Your task to perform on an android device: choose inbox layout in the gmail app Image 0: 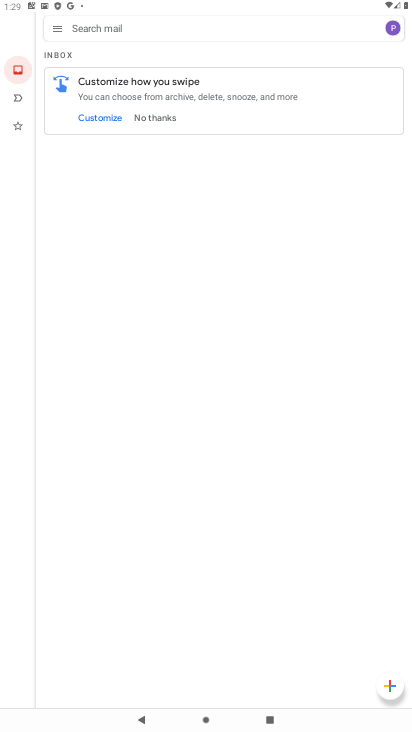
Step 0: press home button
Your task to perform on an android device: choose inbox layout in the gmail app Image 1: 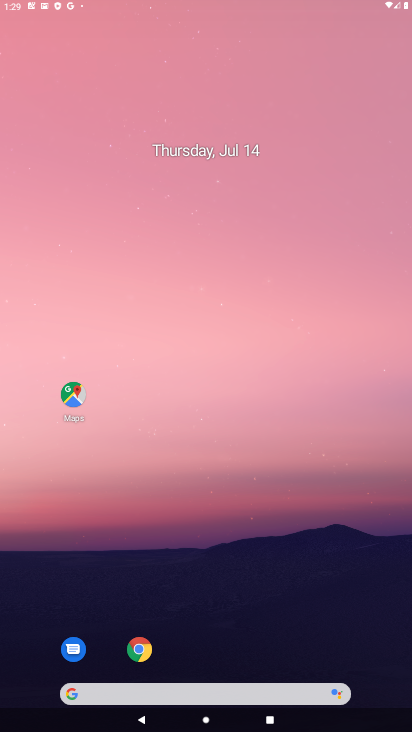
Step 1: drag from (372, 658) to (174, 33)
Your task to perform on an android device: choose inbox layout in the gmail app Image 2: 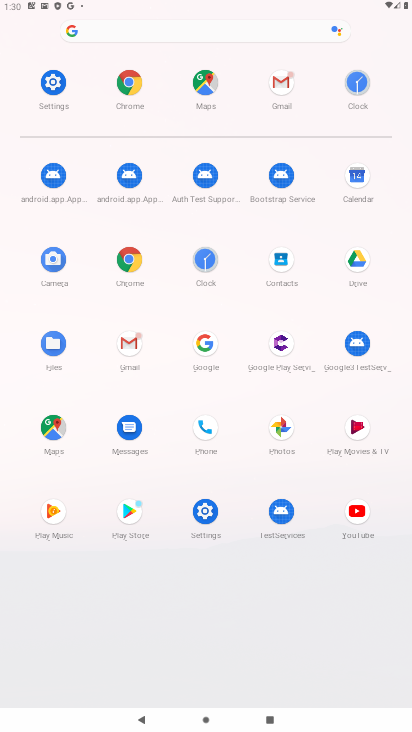
Step 2: click (118, 351)
Your task to perform on an android device: choose inbox layout in the gmail app Image 3: 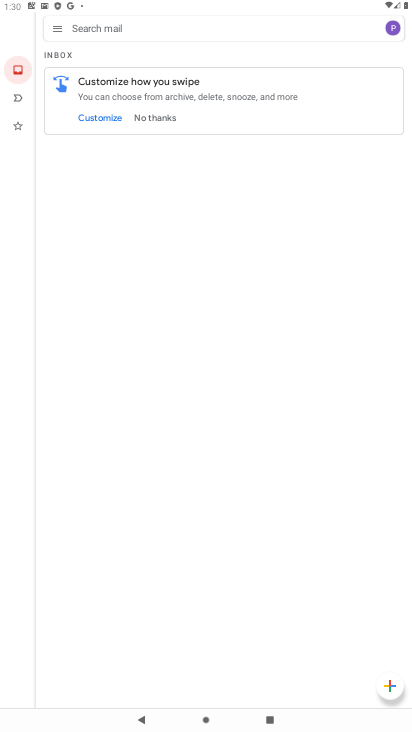
Step 3: task complete